Your task to perform on an android device: Open Android settings Image 0: 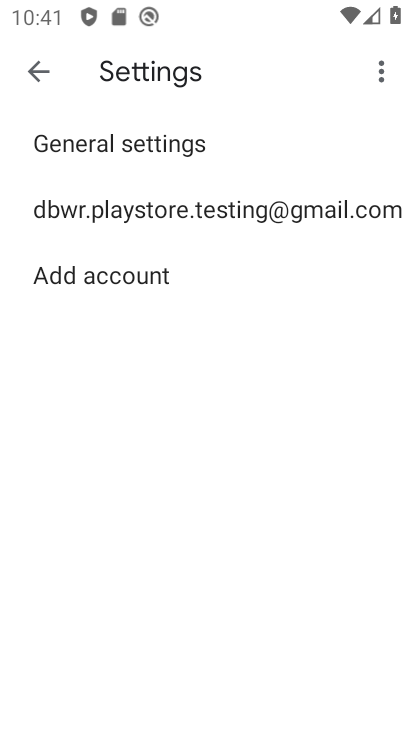
Step 0: press home button
Your task to perform on an android device: Open Android settings Image 1: 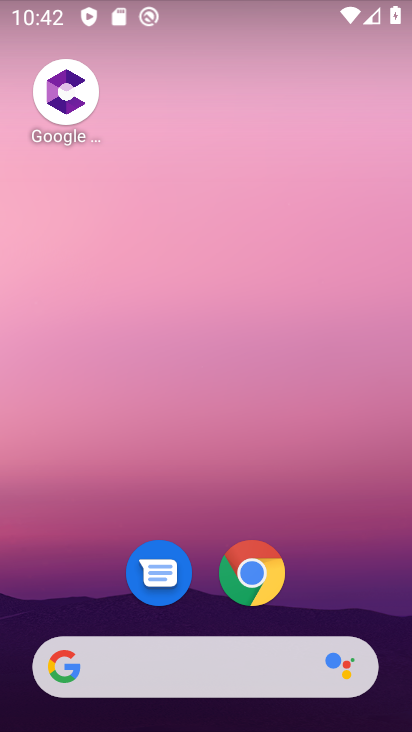
Step 1: drag from (94, 629) to (214, 94)
Your task to perform on an android device: Open Android settings Image 2: 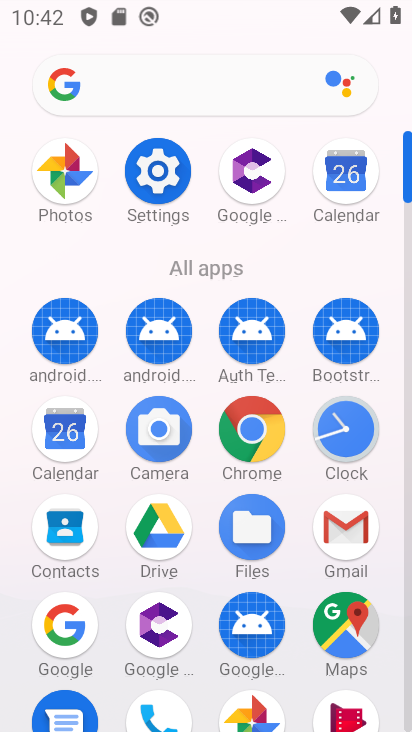
Step 2: drag from (94, 641) to (177, 396)
Your task to perform on an android device: Open Android settings Image 3: 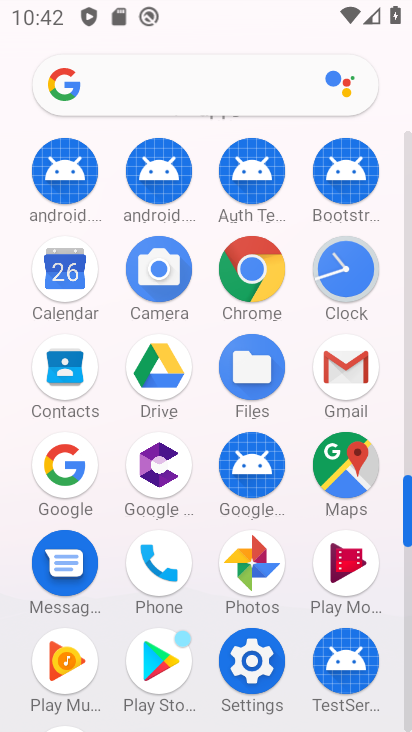
Step 3: click (242, 672)
Your task to perform on an android device: Open Android settings Image 4: 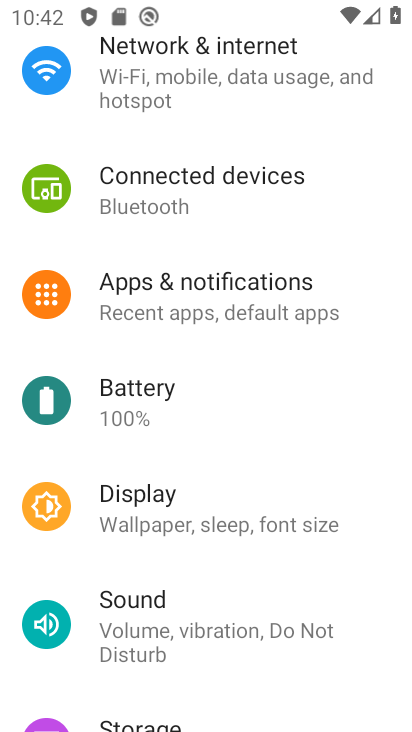
Step 4: task complete